Your task to perform on an android device: Go to privacy settings Image 0: 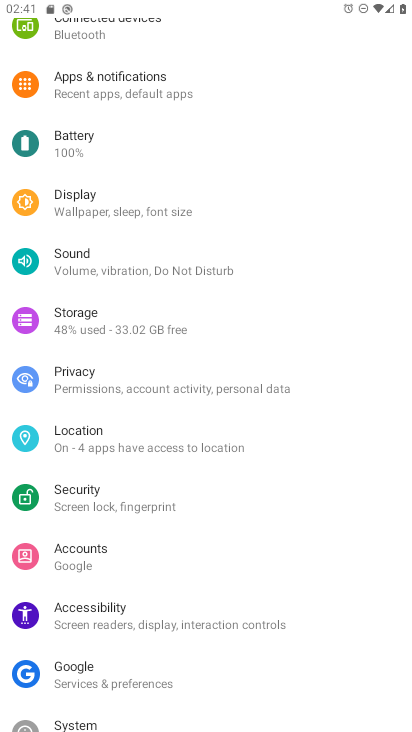
Step 0: click (91, 368)
Your task to perform on an android device: Go to privacy settings Image 1: 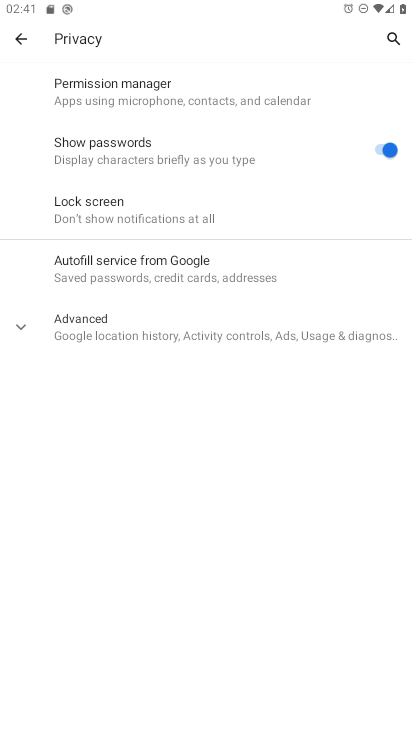
Step 1: click (104, 328)
Your task to perform on an android device: Go to privacy settings Image 2: 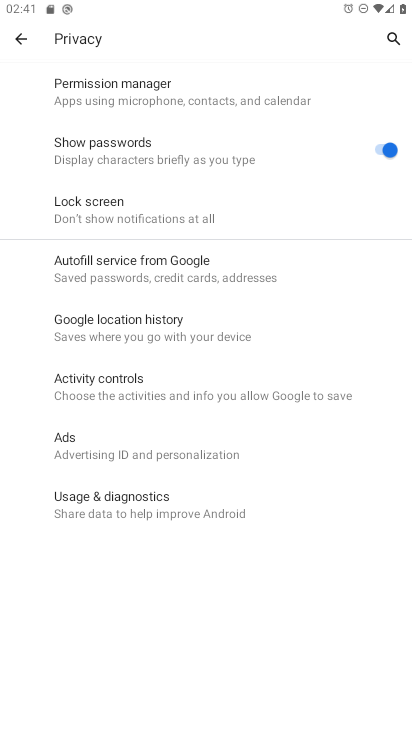
Step 2: task complete